Your task to perform on an android device: see sites visited before in the chrome app Image 0: 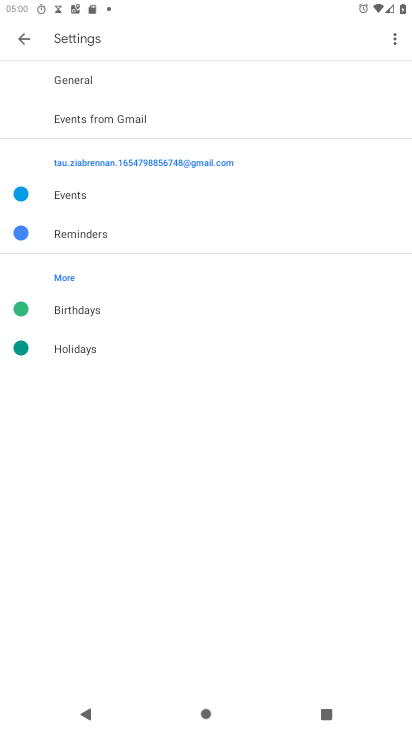
Step 0: press home button
Your task to perform on an android device: see sites visited before in the chrome app Image 1: 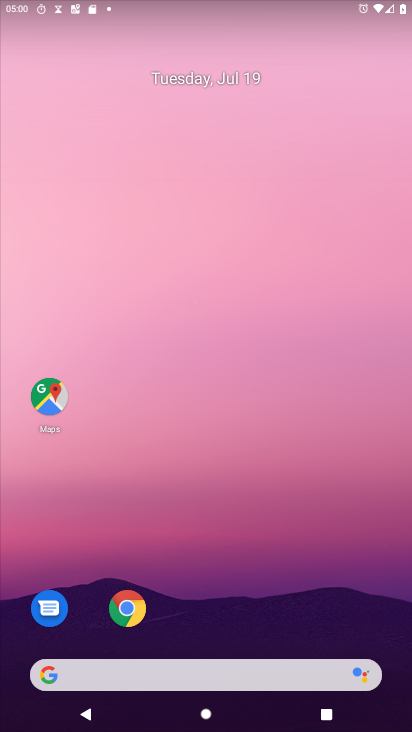
Step 1: click (127, 608)
Your task to perform on an android device: see sites visited before in the chrome app Image 2: 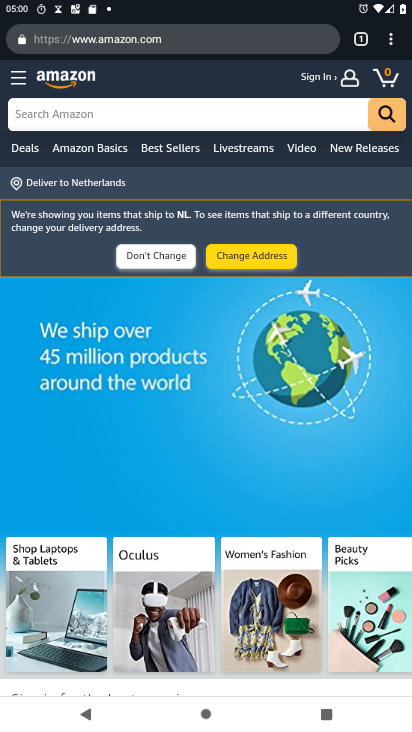
Step 2: click (393, 38)
Your task to perform on an android device: see sites visited before in the chrome app Image 3: 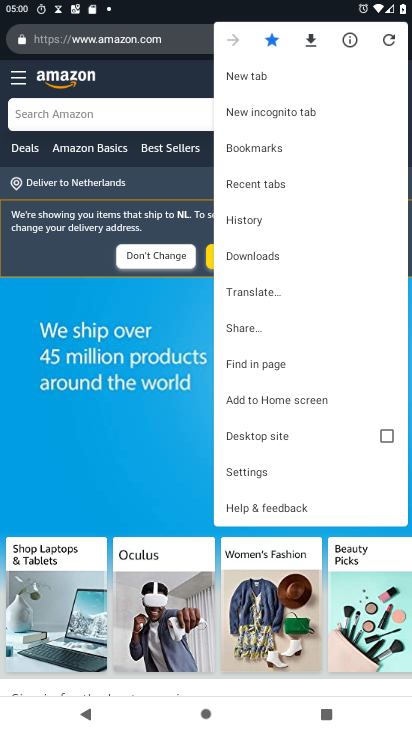
Step 3: click (250, 222)
Your task to perform on an android device: see sites visited before in the chrome app Image 4: 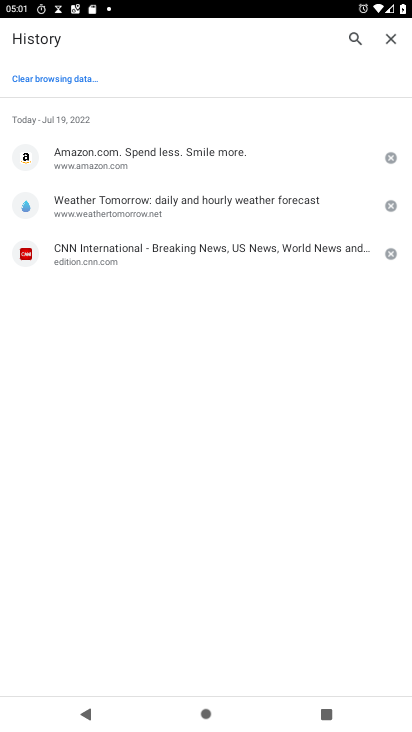
Step 4: task complete